Your task to perform on an android device: Go to Yahoo.com Image 0: 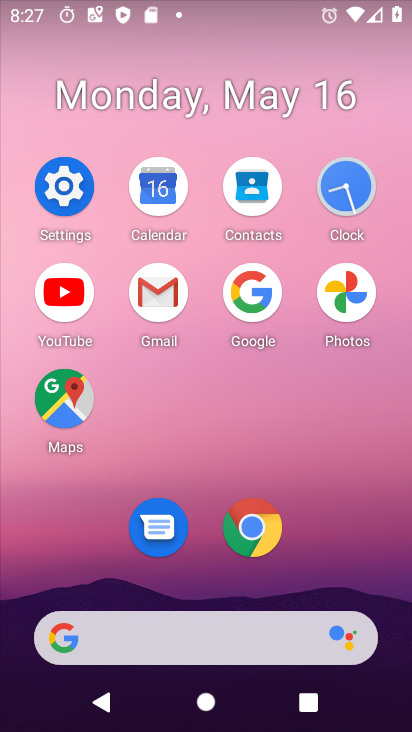
Step 0: click (262, 528)
Your task to perform on an android device: Go to Yahoo.com Image 1: 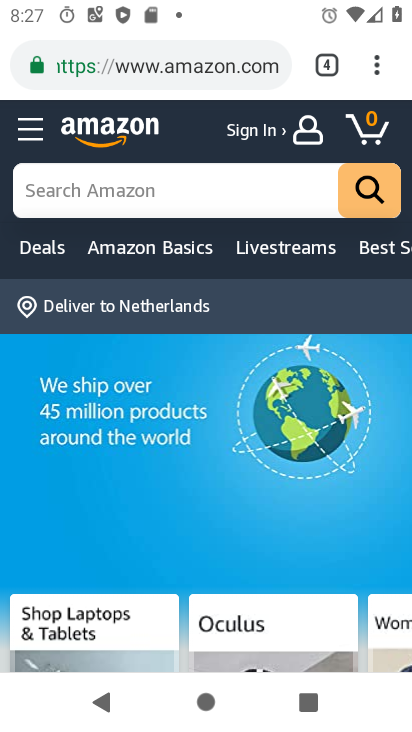
Step 1: click (324, 68)
Your task to perform on an android device: Go to Yahoo.com Image 2: 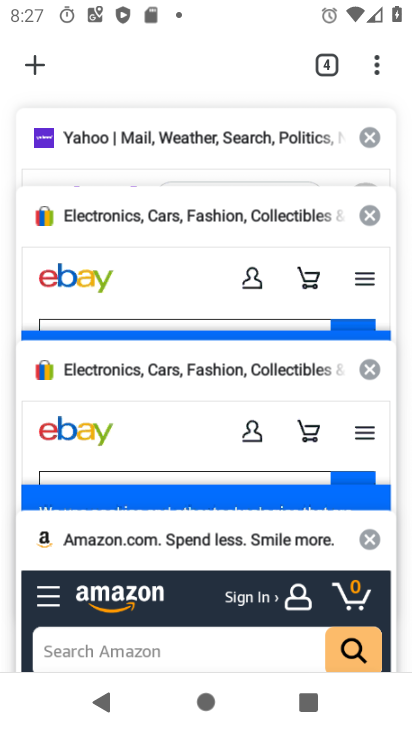
Step 2: click (66, 141)
Your task to perform on an android device: Go to Yahoo.com Image 3: 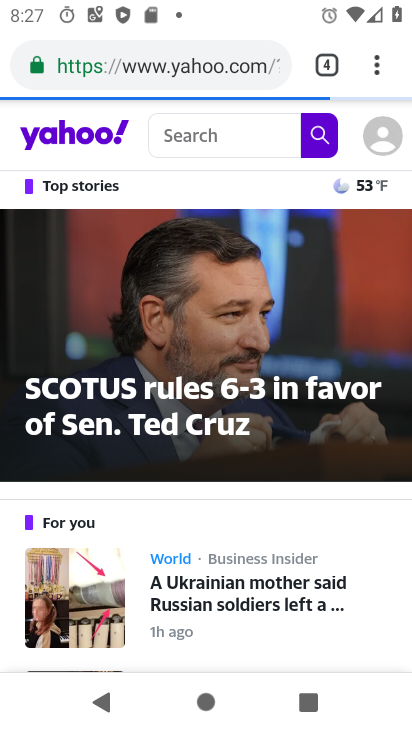
Step 3: task complete